Your task to perform on an android device: What's the weather going to be tomorrow? Image 0: 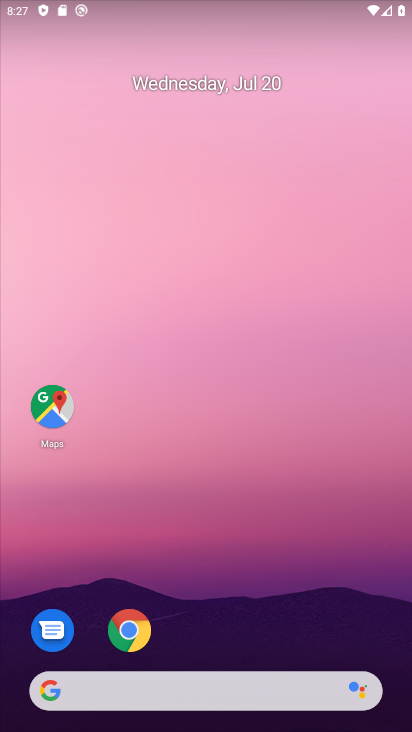
Step 0: click (305, 684)
Your task to perform on an android device: What's the weather going to be tomorrow? Image 1: 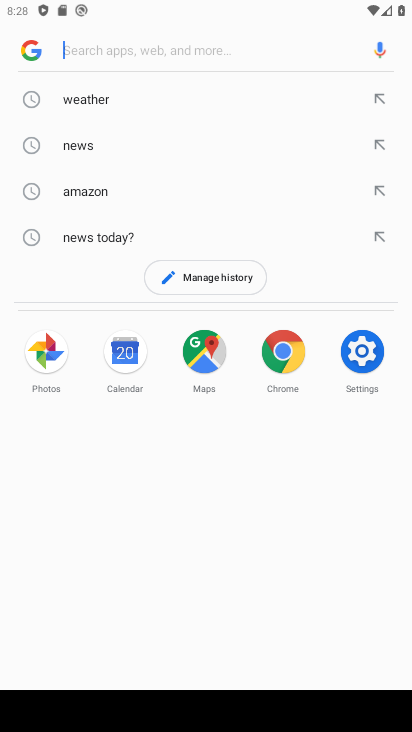
Step 1: type "what's the weather going to be tomorrow"
Your task to perform on an android device: What's the weather going to be tomorrow? Image 2: 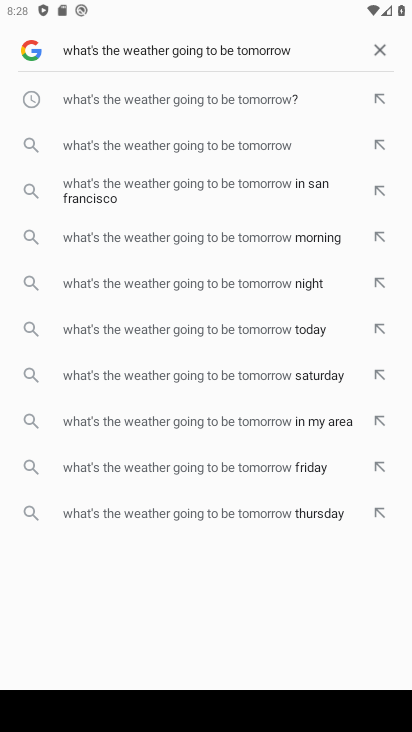
Step 2: click (168, 108)
Your task to perform on an android device: What's the weather going to be tomorrow? Image 3: 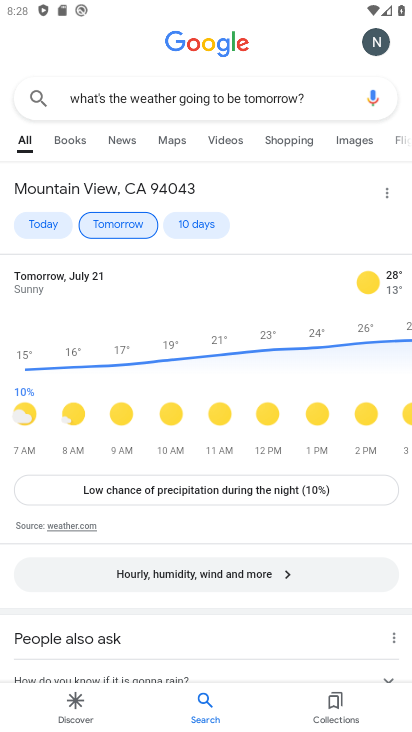
Step 3: task complete